Your task to perform on an android device: turn off location Image 0: 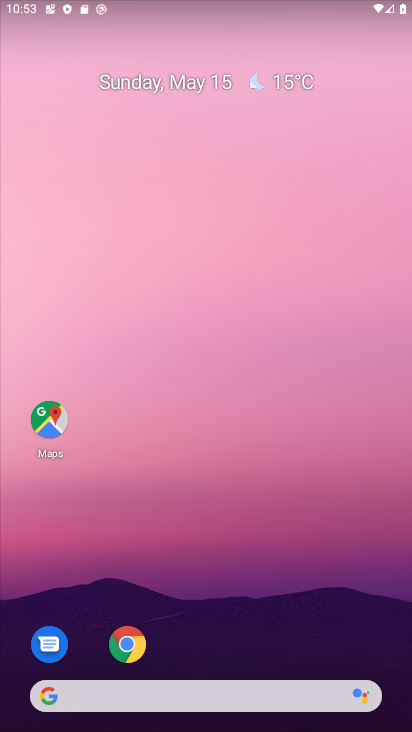
Step 0: press home button
Your task to perform on an android device: turn off location Image 1: 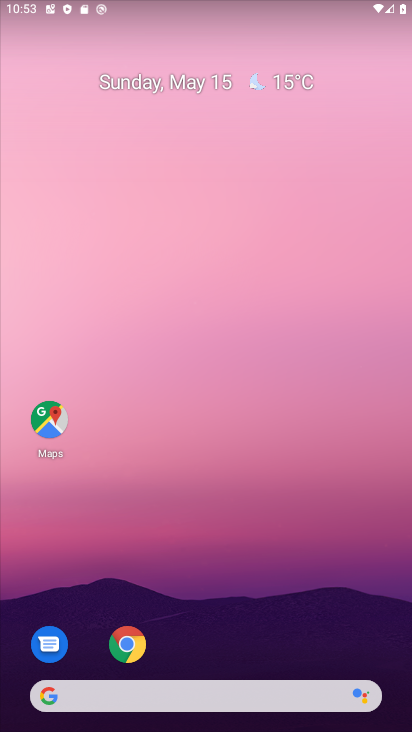
Step 1: drag from (282, 551) to (164, 19)
Your task to perform on an android device: turn off location Image 2: 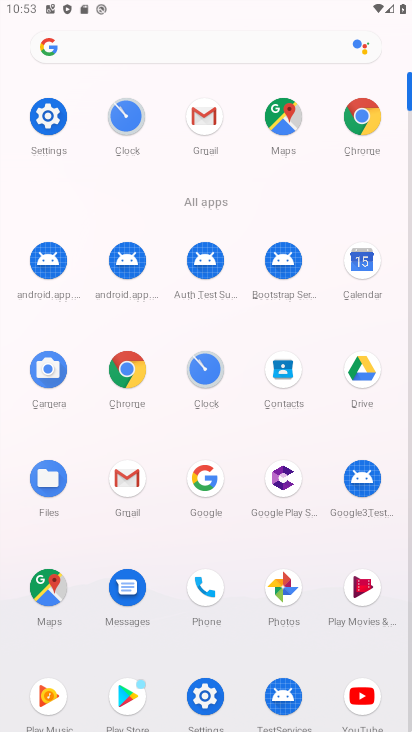
Step 2: click (39, 111)
Your task to perform on an android device: turn off location Image 3: 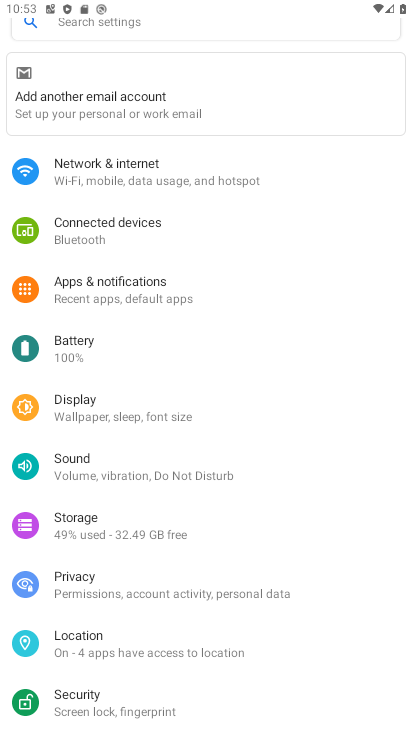
Step 3: click (140, 632)
Your task to perform on an android device: turn off location Image 4: 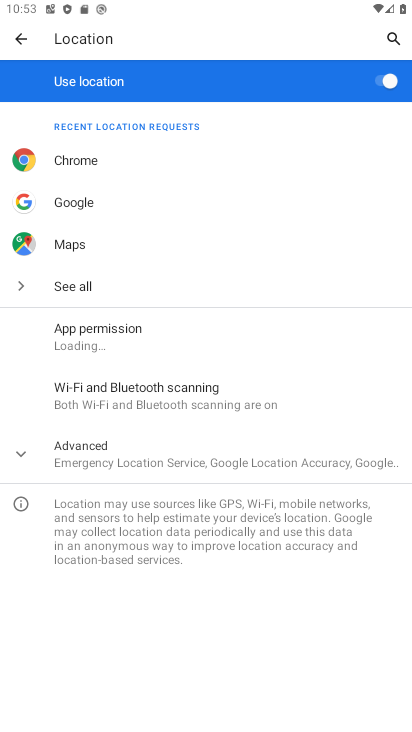
Step 4: click (385, 82)
Your task to perform on an android device: turn off location Image 5: 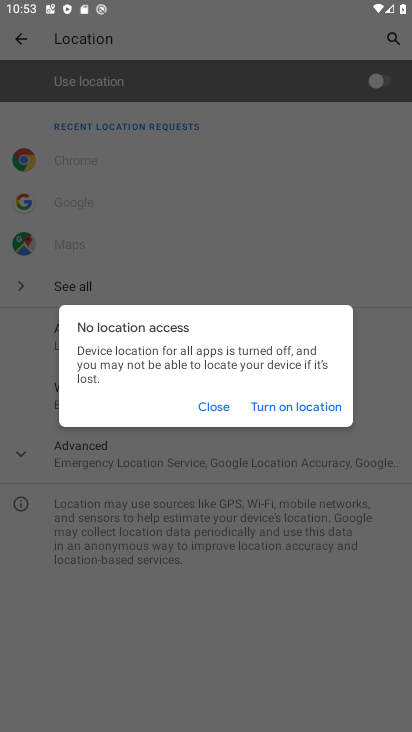
Step 5: press home button
Your task to perform on an android device: turn off location Image 6: 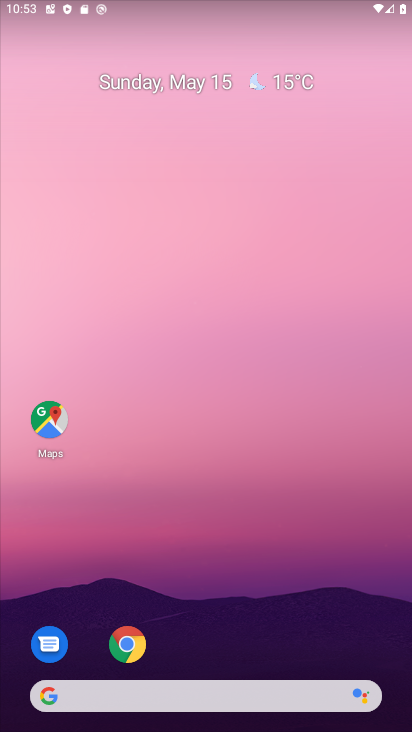
Step 6: drag from (273, 562) to (143, 39)
Your task to perform on an android device: turn off location Image 7: 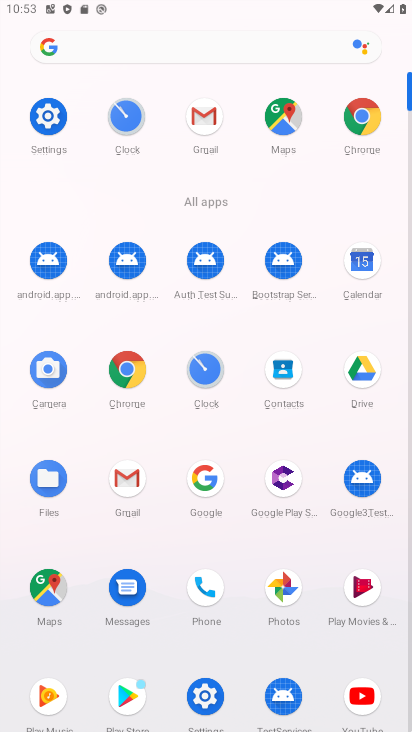
Step 7: click (37, 113)
Your task to perform on an android device: turn off location Image 8: 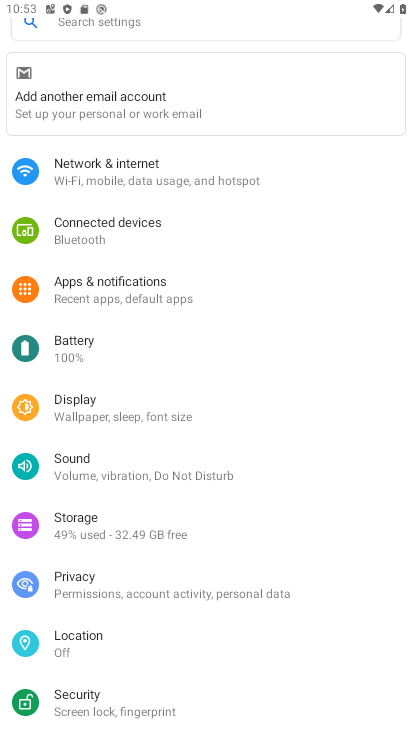
Step 8: click (161, 634)
Your task to perform on an android device: turn off location Image 9: 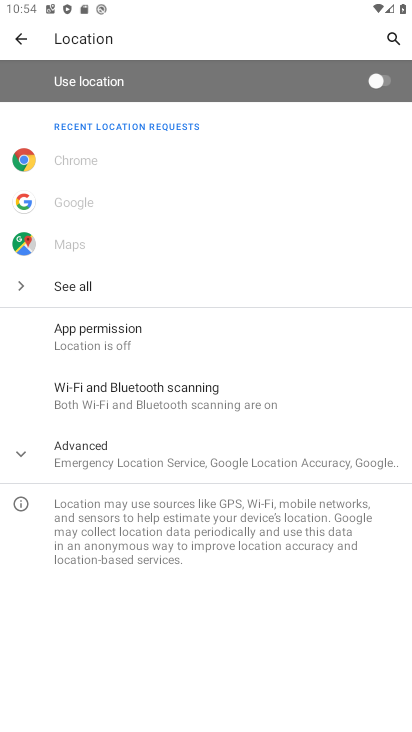
Step 9: click (176, 662)
Your task to perform on an android device: turn off location Image 10: 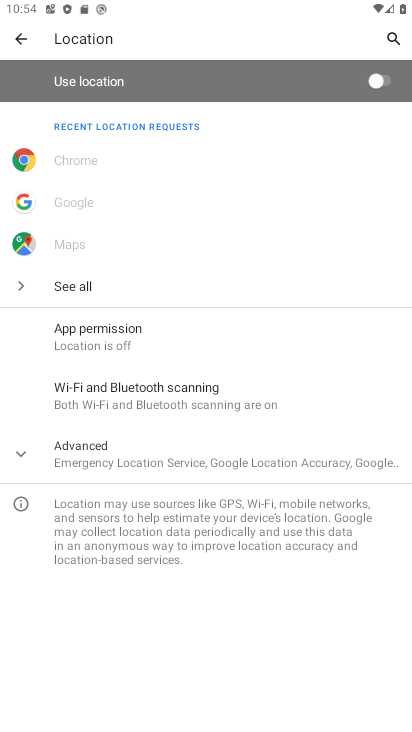
Step 10: task complete